Your task to perform on an android device: toggle data saver in the chrome app Image 0: 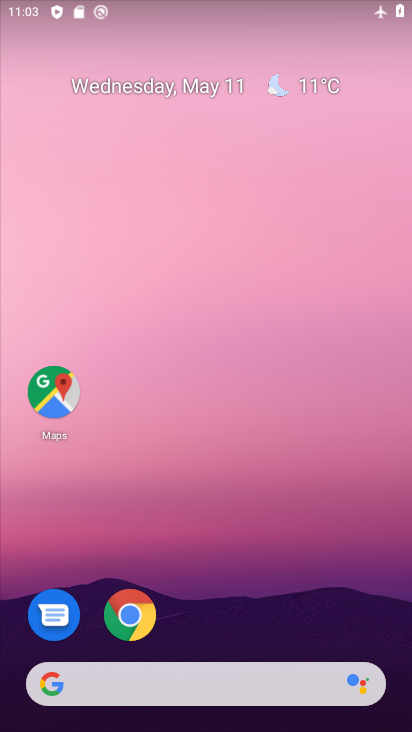
Step 0: click (131, 615)
Your task to perform on an android device: toggle data saver in the chrome app Image 1: 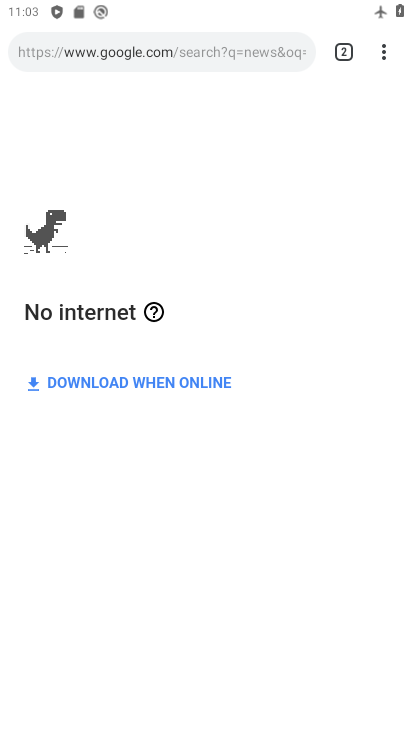
Step 1: drag from (388, 53) to (206, 577)
Your task to perform on an android device: toggle data saver in the chrome app Image 2: 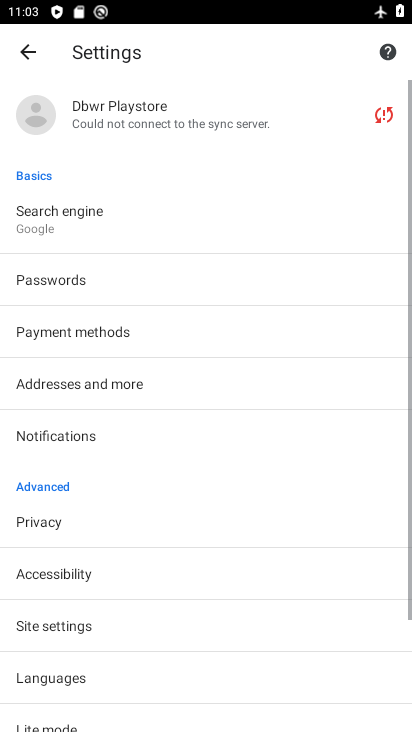
Step 2: drag from (208, 654) to (309, 94)
Your task to perform on an android device: toggle data saver in the chrome app Image 3: 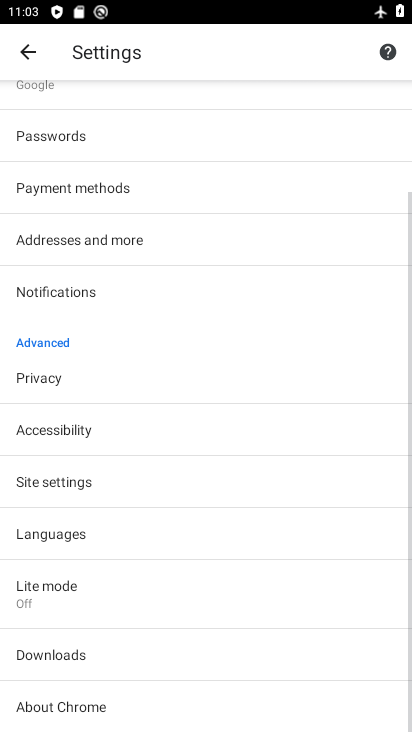
Step 3: click (90, 591)
Your task to perform on an android device: toggle data saver in the chrome app Image 4: 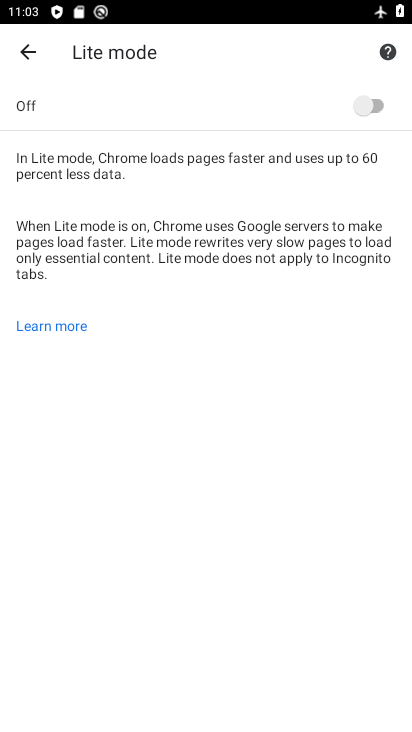
Step 4: click (351, 105)
Your task to perform on an android device: toggle data saver in the chrome app Image 5: 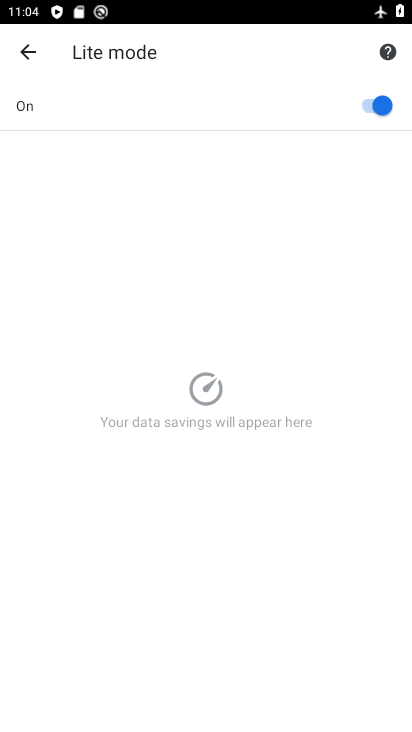
Step 5: task complete